Your task to perform on an android device: change the clock display to show seconds Image 0: 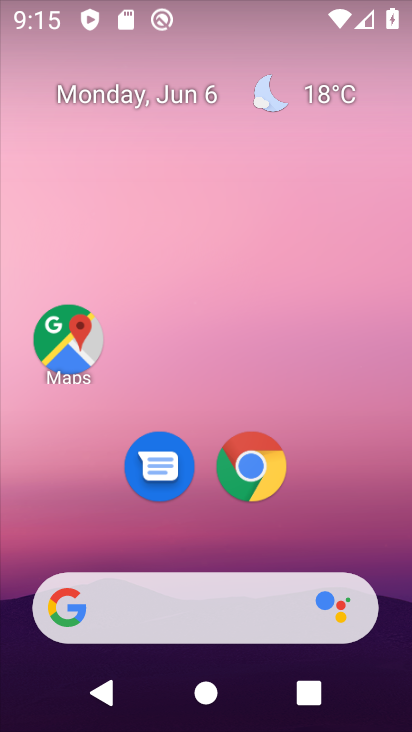
Step 0: drag from (201, 533) to (200, 34)
Your task to perform on an android device: change the clock display to show seconds Image 1: 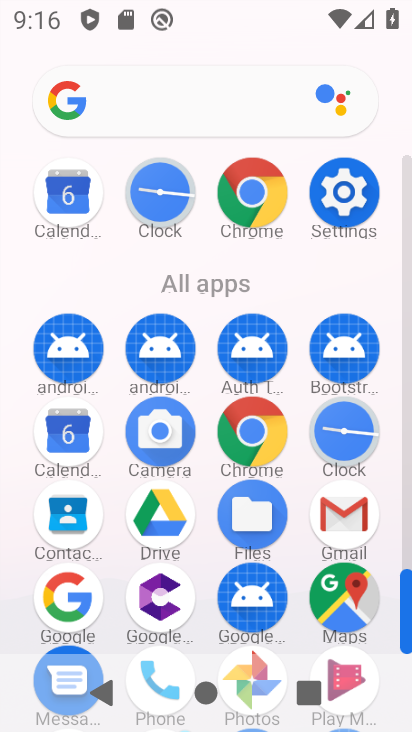
Step 1: click (154, 194)
Your task to perform on an android device: change the clock display to show seconds Image 2: 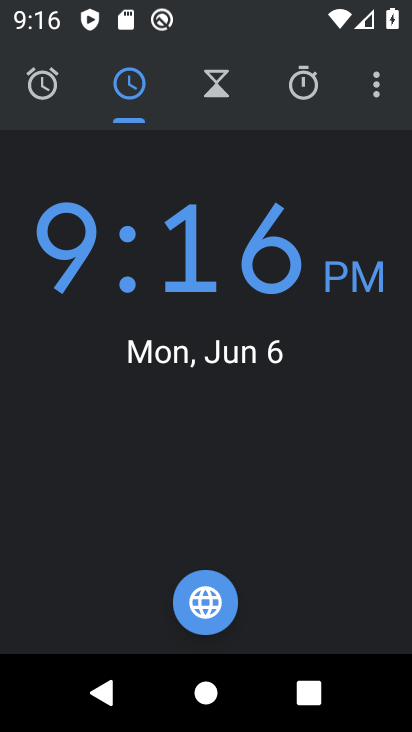
Step 2: click (379, 101)
Your task to perform on an android device: change the clock display to show seconds Image 3: 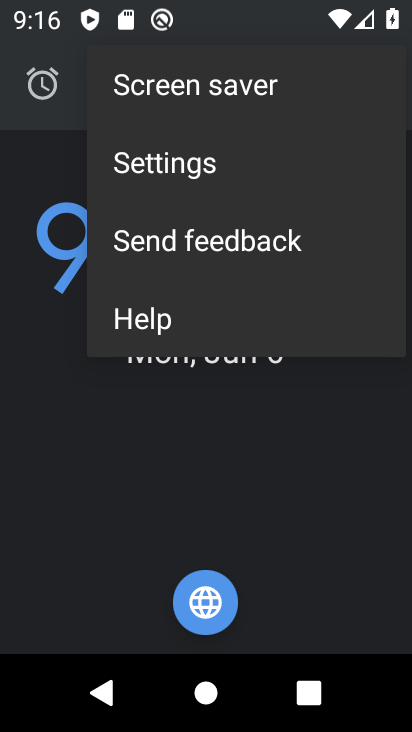
Step 3: click (226, 165)
Your task to perform on an android device: change the clock display to show seconds Image 4: 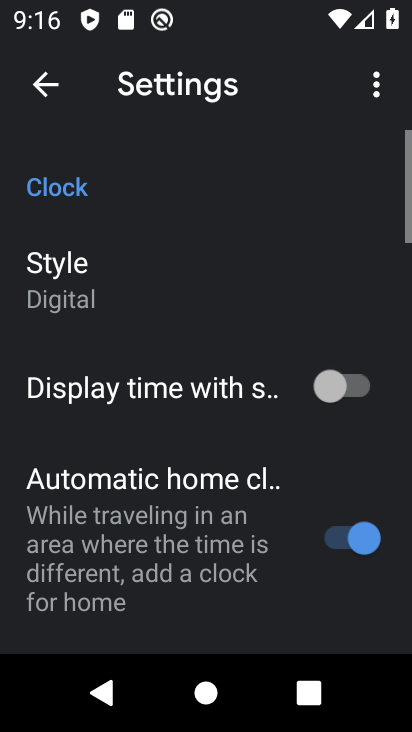
Step 4: drag from (192, 535) to (213, 249)
Your task to perform on an android device: change the clock display to show seconds Image 5: 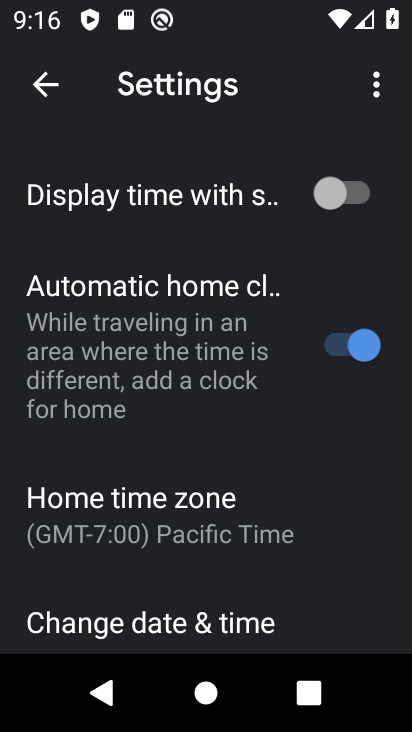
Step 5: drag from (203, 545) to (221, 316)
Your task to perform on an android device: change the clock display to show seconds Image 6: 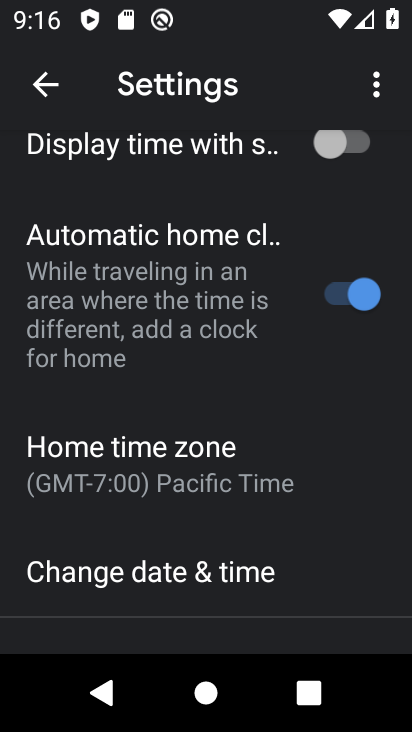
Step 6: click (361, 147)
Your task to perform on an android device: change the clock display to show seconds Image 7: 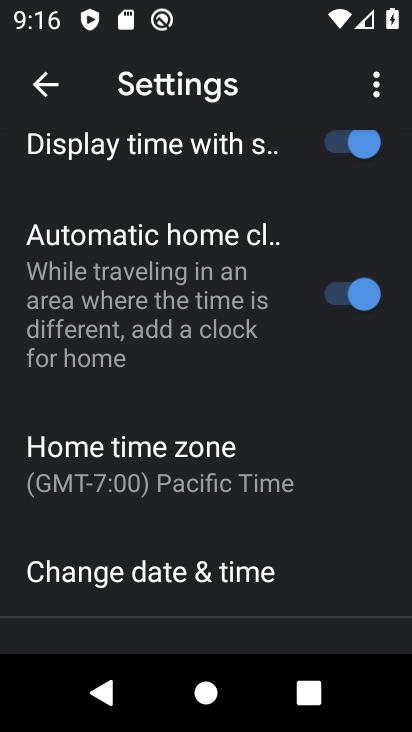
Step 7: task complete